Your task to perform on an android device: Search for "macbook" on walmart, select the first entry, add it to the cart, then select checkout. Image 0: 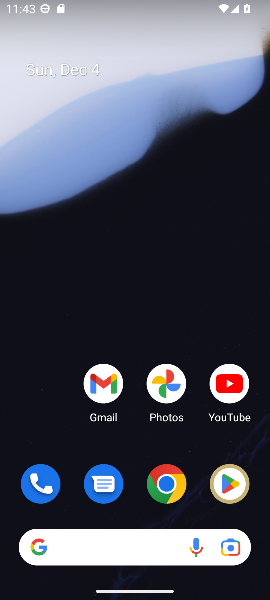
Step 0: click (171, 486)
Your task to perform on an android device: Search for "macbook" on walmart, select the first entry, add it to the cart, then select checkout. Image 1: 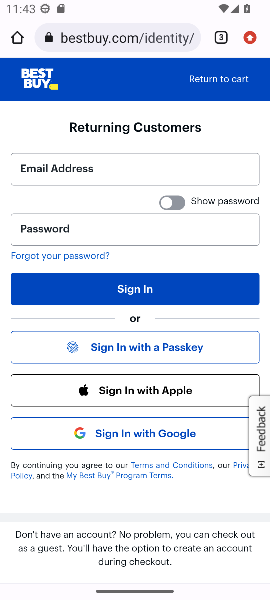
Step 1: click (100, 38)
Your task to perform on an android device: Search for "macbook" on walmart, select the first entry, add it to the cart, then select checkout. Image 2: 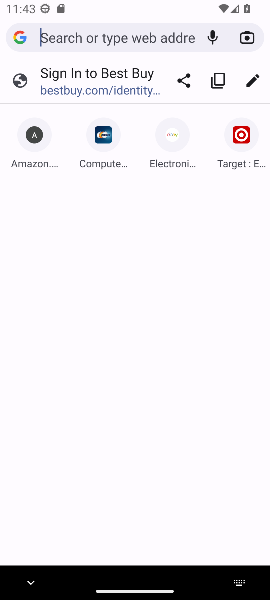
Step 2: type "walmart.com"
Your task to perform on an android device: Search for "macbook" on walmart, select the first entry, add it to the cart, then select checkout. Image 3: 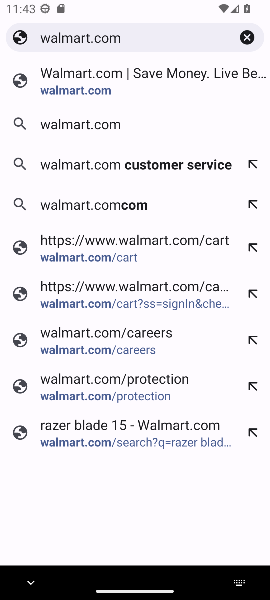
Step 3: click (71, 96)
Your task to perform on an android device: Search for "macbook" on walmart, select the first entry, add it to the cart, then select checkout. Image 4: 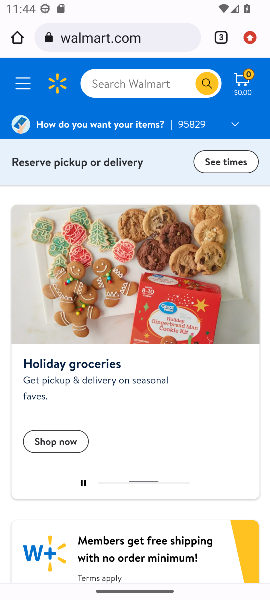
Step 4: click (131, 86)
Your task to perform on an android device: Search for "macbook" on walmart, select the first entry, add it to the cart, then select checkout. Image 5: 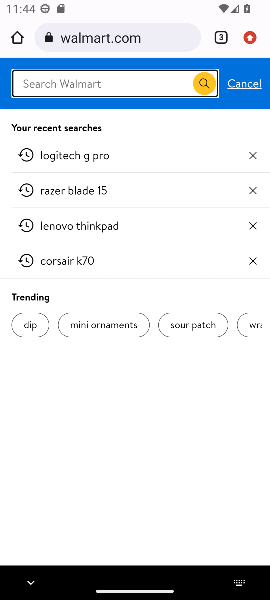
Step 5: type "macbook"
Your task to perform on an android device: Search for "macbook" on walmart, select the first entry, add it to the cart, then select checkout. Image 6: 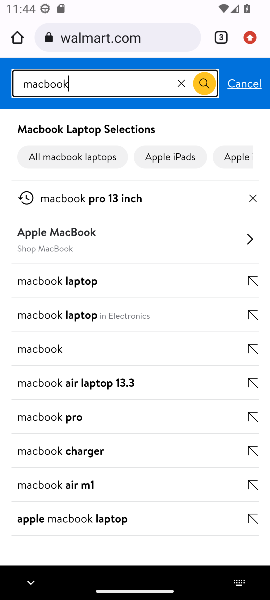
Step 6: click (56, 348)
Your task to perform on an android device: Search for "macbook" on walmart, select the first entry, add it to the cart, then select checkout. Image 7: 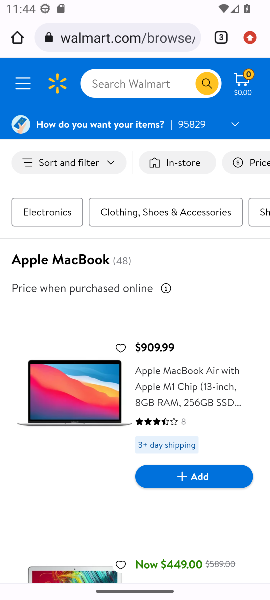
Step 7: click (202, 470)
Your task to perform on an android device: Search for "macbook" on walmart, select the first entry, add it to the cart, then select checkout. Image 8: 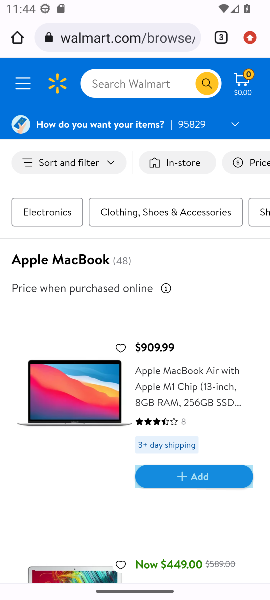
Step 8: drag from (95, 448) to (98, 389)
Your task to perform on an android device: Search for "macbook" on walmart, select the first entry, add it to the cart, then select checkout. Image 9: 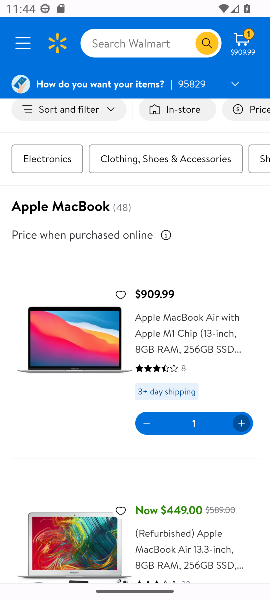
Step 9: click (243, 45)
Your task to perform on an android device: Search for "macbook" on walmart, select the first entry, add it to the cart, then select checkout. Image 10: 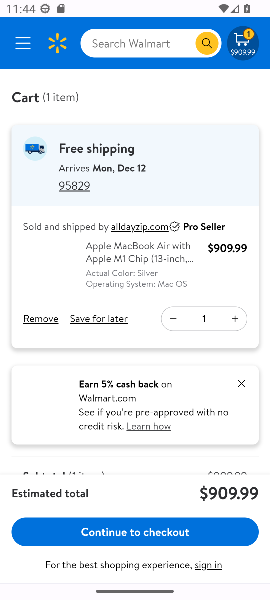
Step 10: click (97, 527)
Your task to perform on an android device: Search for "macbook" on walmart, select the first entry, add it to the cart, then select checkout. Image 11: 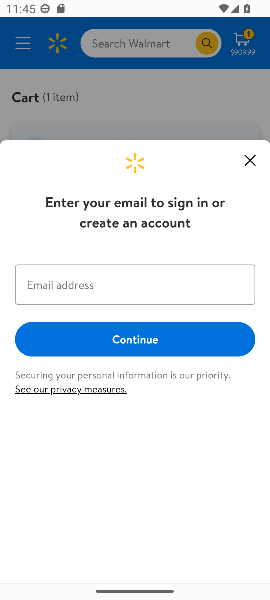
Step 11: task complete